Your task to perform on an android device: open the mobile data screen to see how much data has been used Image 0: 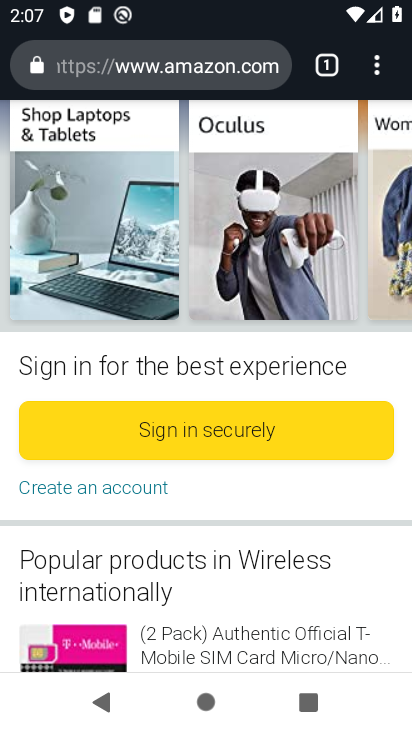
Step 0: drag from (225, 616) to (240, 126)
Your task to perform on an android device: open the mobile data screen to see how much data has been used Image 1: 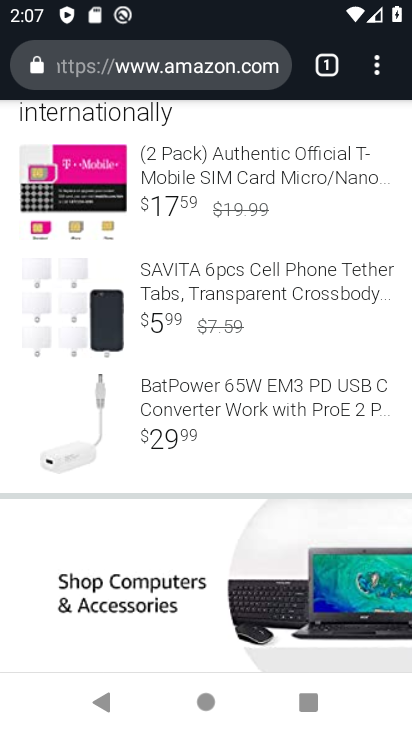
Step 1: press home button
Your task to perform on an android device: open the mobile data screen to see how much data has been used Image 2: 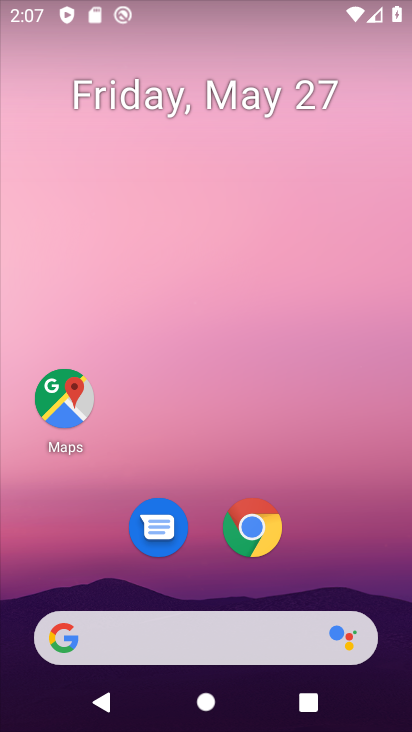
Step 2: drag from (171, 611) to (203, 65)
Your task to perform on an android device: open the mobile data screen to see how much data has been used Image 3: 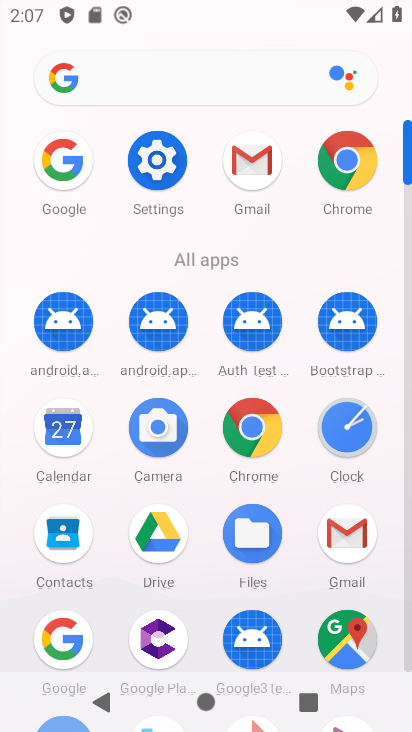
Step 3: click (167, 163)
Your task to perform on an android device: open the mobile data screen to see how much data has been used Image 4: 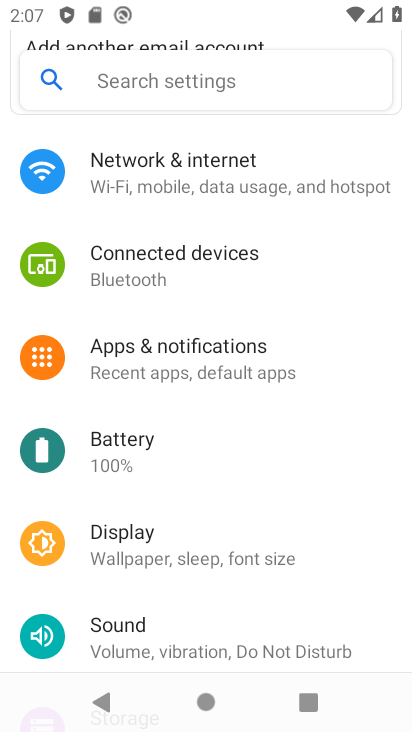
Step 4: click (172, 192)
Your task to perform on an android device: open the mobile data screen to see how much data has been used Image 5: 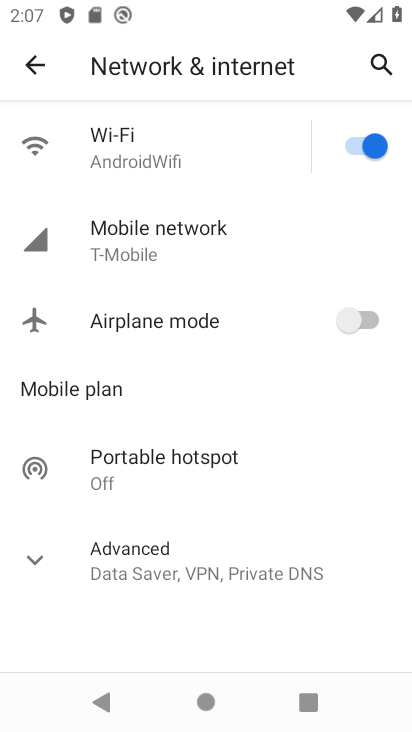
Step 5: click (152, 247)
Your task to perform on an android device: open the mobile data screen to see how much data has been used Image 6: 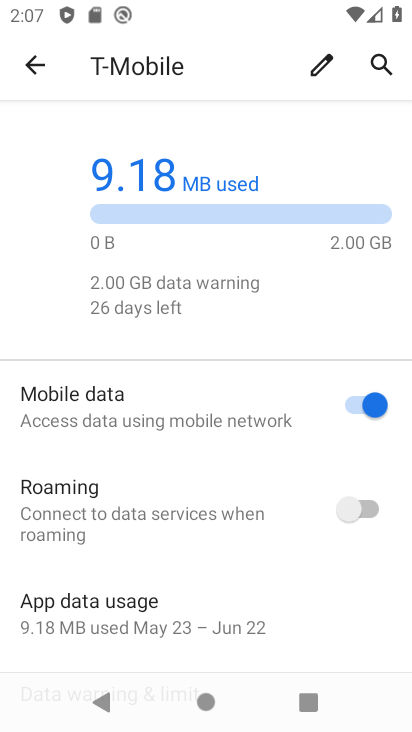
Step 6: task complete